Your task to perform on an android device: toggle wifi Image 0: 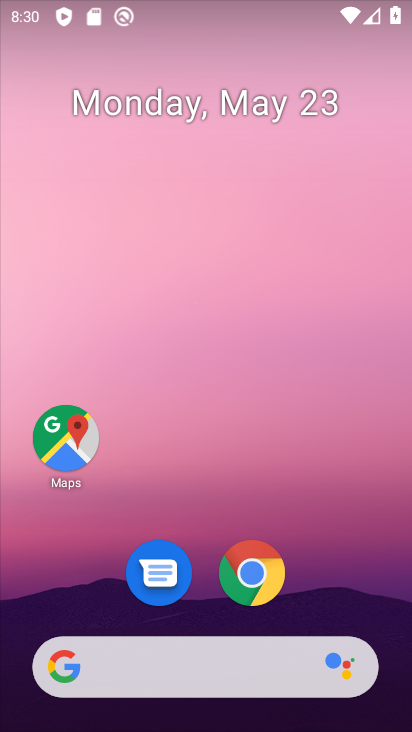
Step 0: drag from (290, 462) to (302, 19)
Your task to perform on an android device: toggle wifi Image 1: 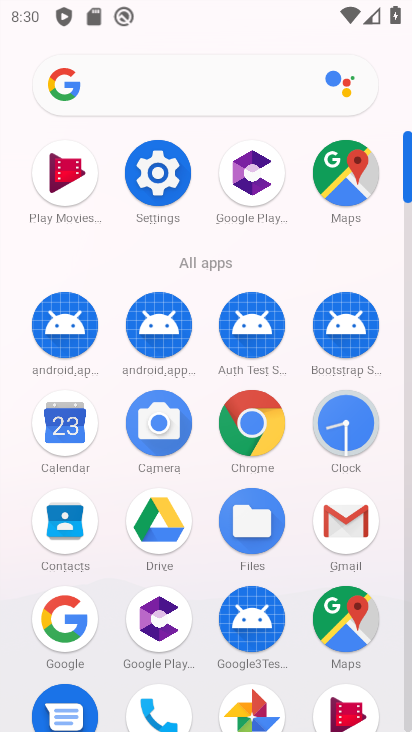
Step 1: click (177, 187)
Your task to perform on an android device: toggle wifi Image 2: 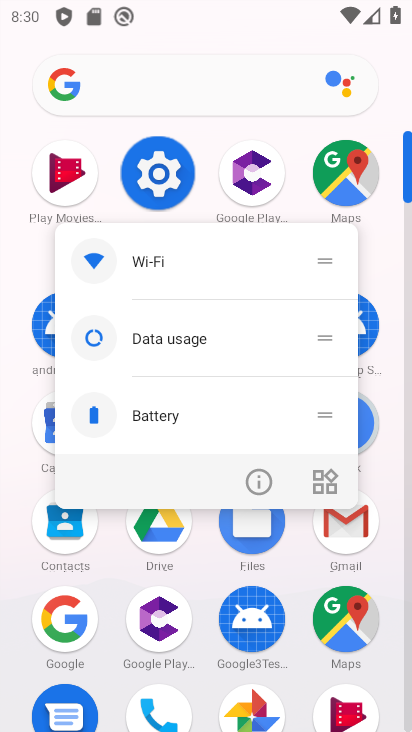
Step 2: click (167, 176)
Your task to perform on an android device: toggle wifi Image 3: 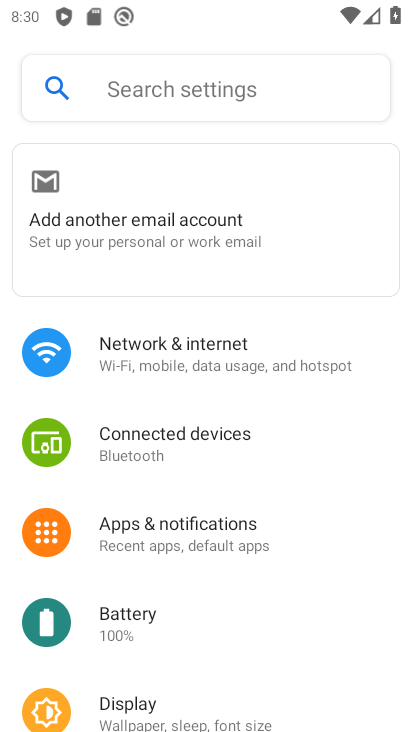
Step 3: click (175, 359)
Your task to perform on an android device: toggle wifi Image 4: 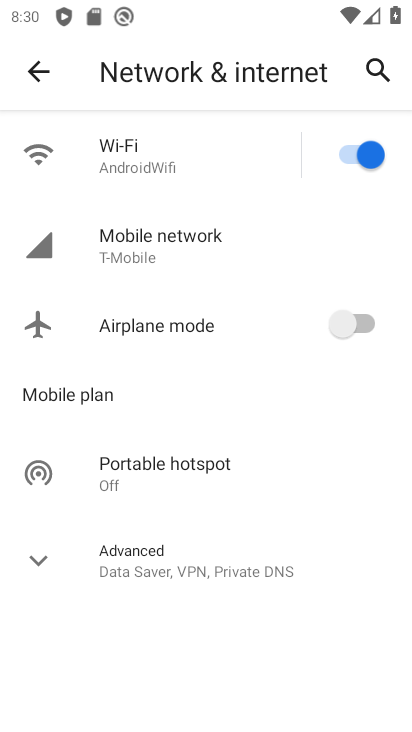
Step 4: click (349, 151)
Your task to perform on an android device: toggle wifi Image 5: 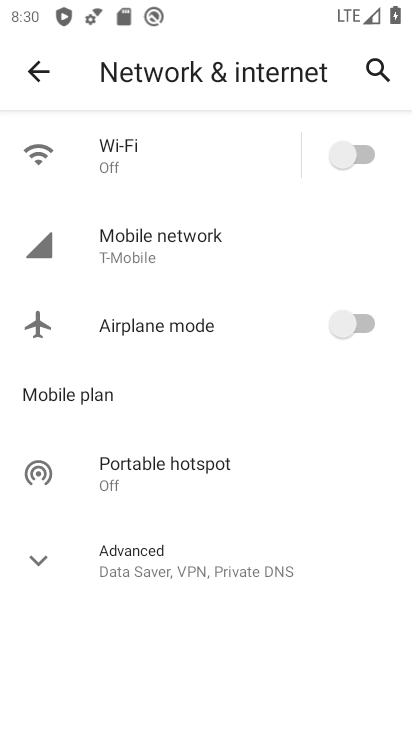
Step 5: task complete